Your task to perform on an android device: star an email in the gmail app Image 0: 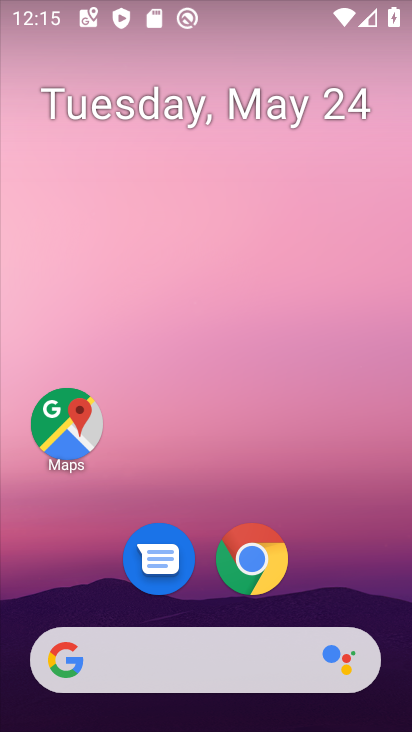
Step 0: drag from (366, 621) to (210, 154)
Your task to perform on an android device: star an email in the gmail app Image 1: 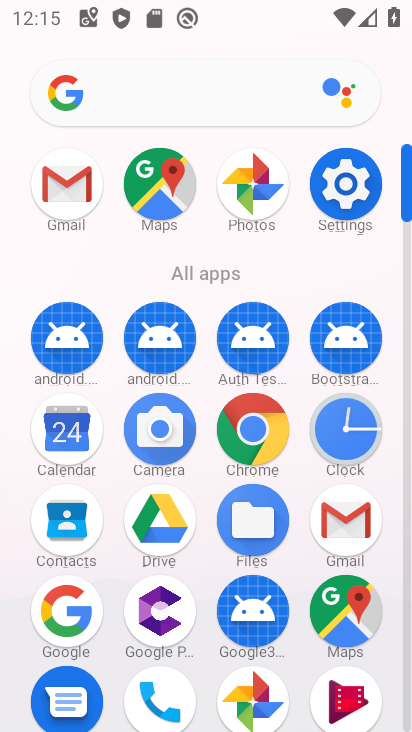
Step 1: click (347, 497)
Your task to perform on an android device: star an email in the gmail app Image 2: 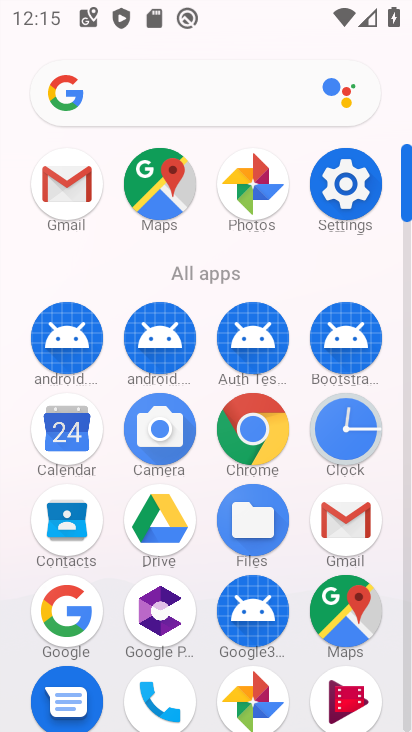
Step 2: click (354, 513)
Your task to perform on an android device: star an email in the gmail app Image 3: 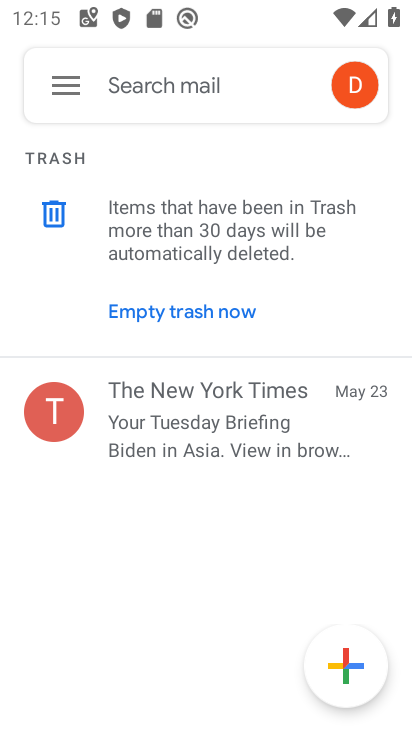
Step 3: click (162, 430)
Your task to perform on an android device: star an email in the gmail app Image 4: 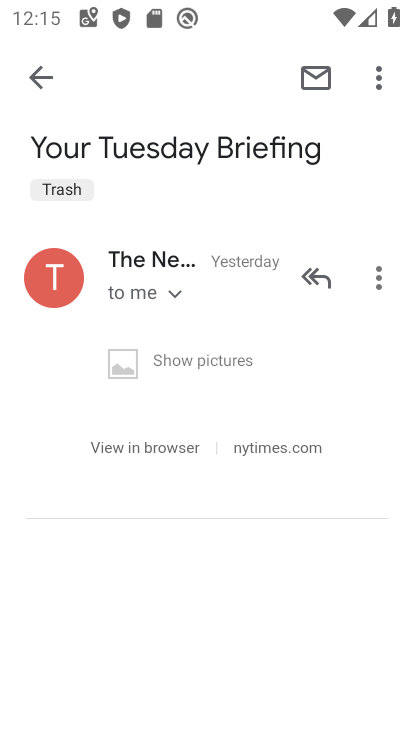
Step 4: click (38, 80)
Your task to perform on an android device: star an email in the gmail app Image 5: 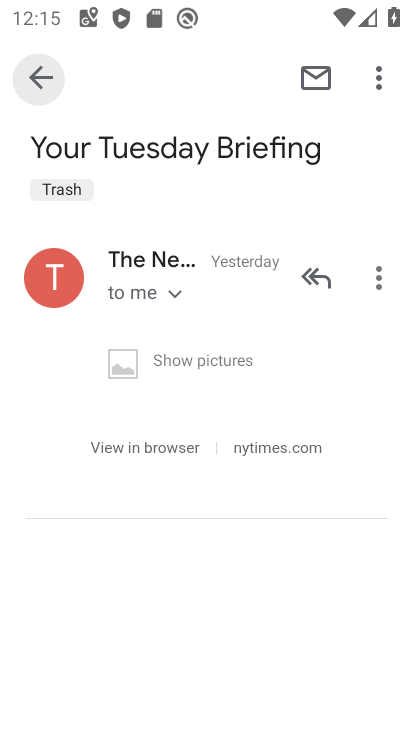
Step 5: click (38, 80)
Your task to perform on an android device: star an email in the gmail app Image 6: 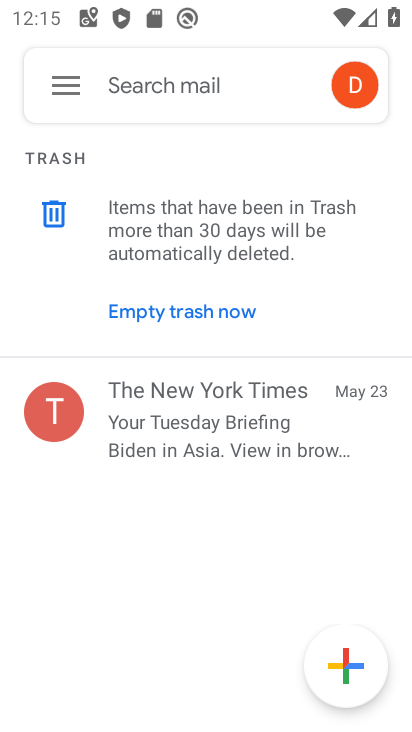
Step 6: click (179, 428)
Your task to perform on an android device: star an email in the gmail app Image 7: 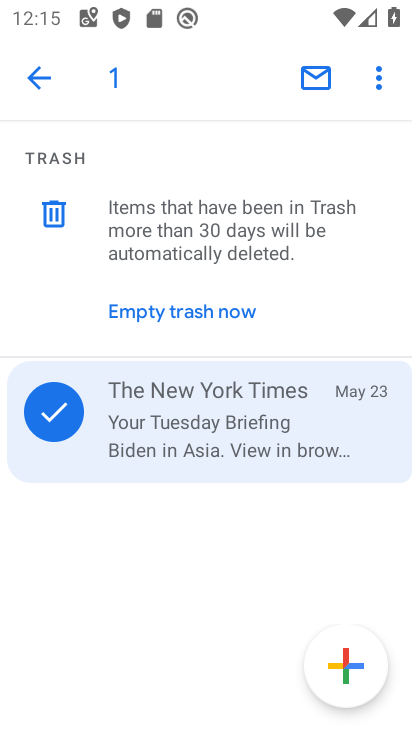
Step 7: click (373, 71)
Your task to perform on an android device: star an email in the gmail app Image 8: 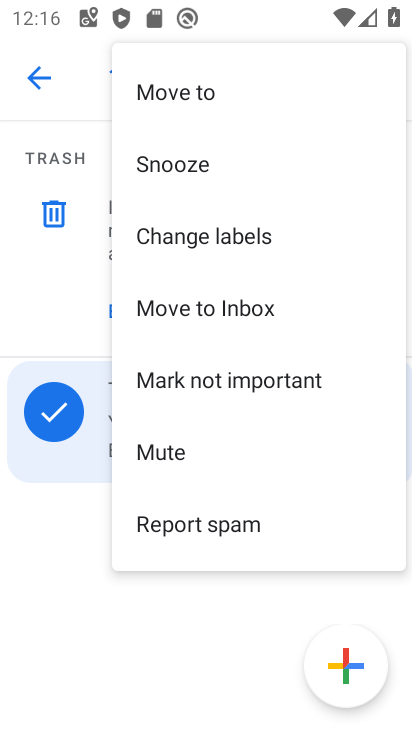
Step 8: click (158, 589)
Your task to perform on an android device: star an email in the gmail app Image 9: 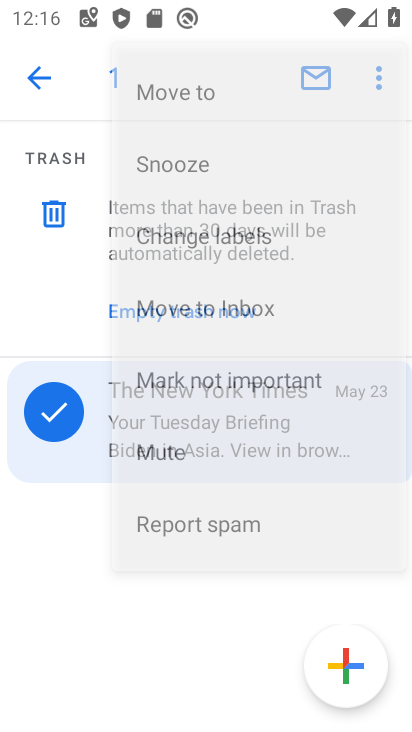
Step 9: click (158, 589)
Your task to perform on an android device: star an email in the gmail app Image 10: 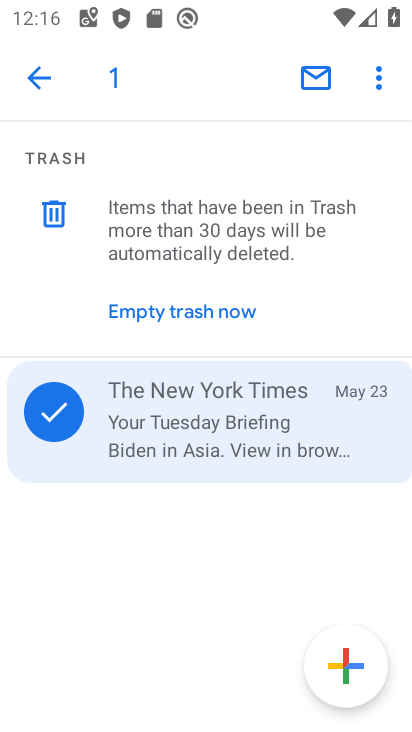
Step 10: click (40, 79)
Your task to perform on an android device: star an email in the gmail app Image 11: 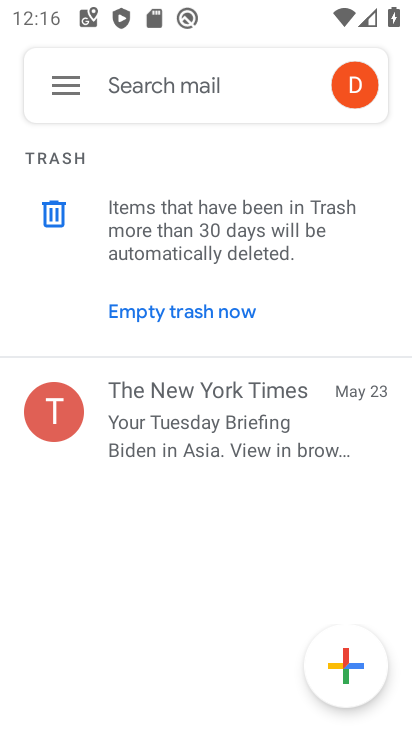
Step 11: click (66, 84)
Your task to perform on an android device: star an email in the gmail app Image 12: 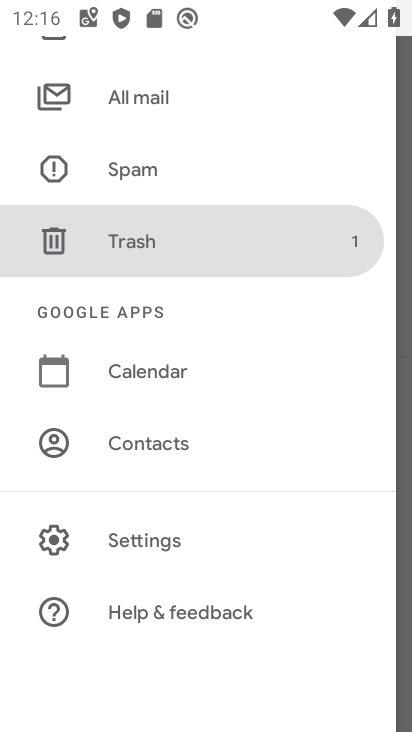
Step 12: click (137, 99)
Your task to perform on an android device: star an email in the gmail app Image 13: 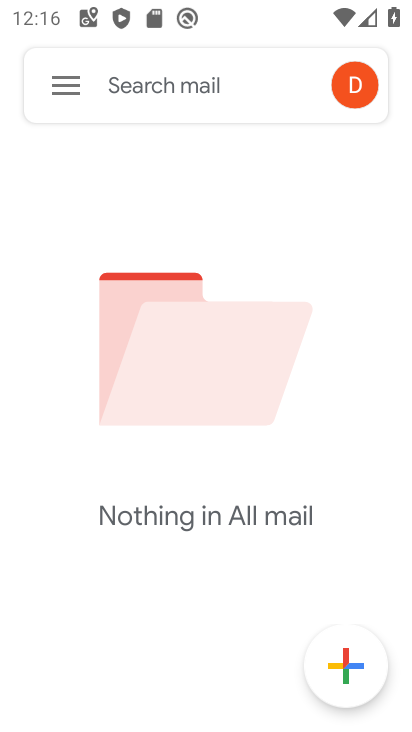
Step 13: task complete